Your task to perform on an android device: Open Android settings Image 0: 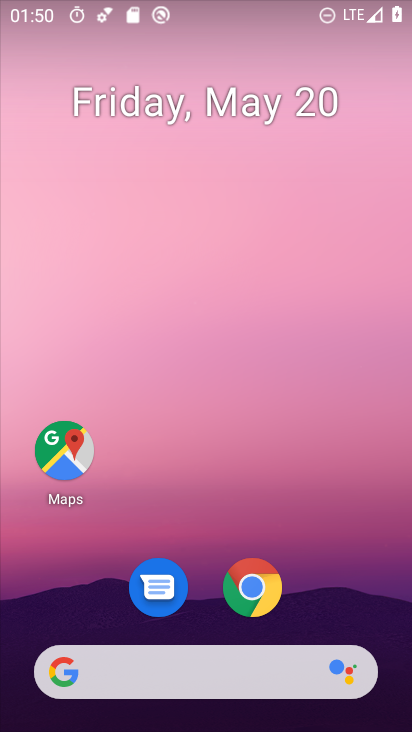
Step 0: drag from (388, 495) to (402, 69)
Your task to perform on an android device: Open Android settings Image 1: 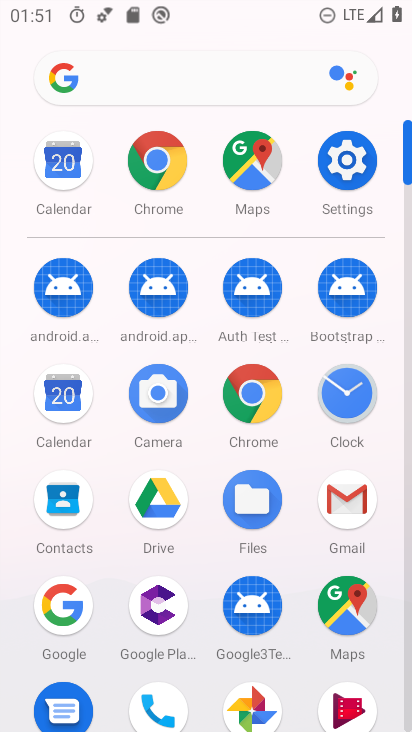
Step 1: click (354, 189)
Your task to perform on an android device: Open Android settings Image 2: 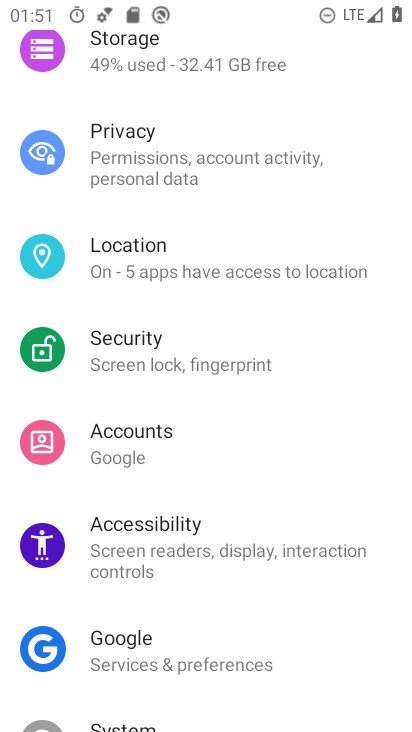
Step 2: drag from (335, 620) to (335, 455)
Your task to perform on an android device: Open Android settings Image 3: 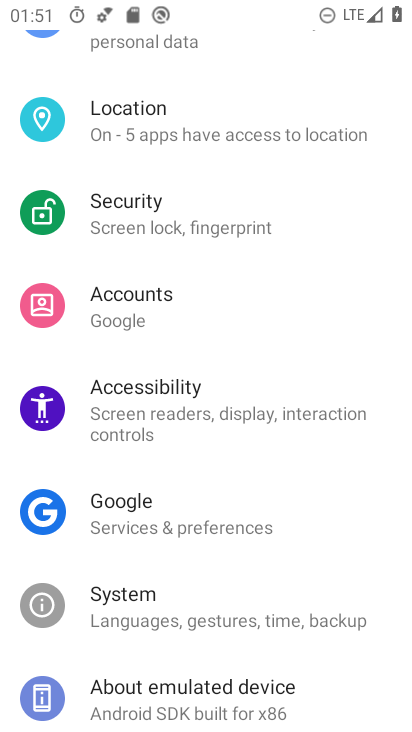
Step 3: drag from (336, 655) to (340, 477)
Your task to perform on an android device: Open Android settings Image 4: 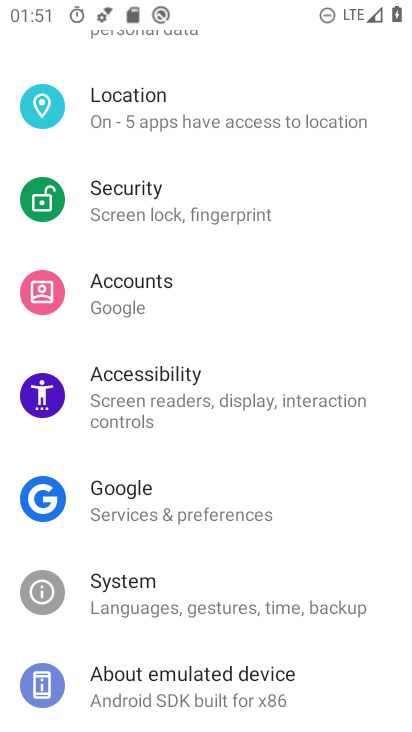
Step 4: click (303, 611)
Your task to perform on an android device: Open Android settings Image 5: 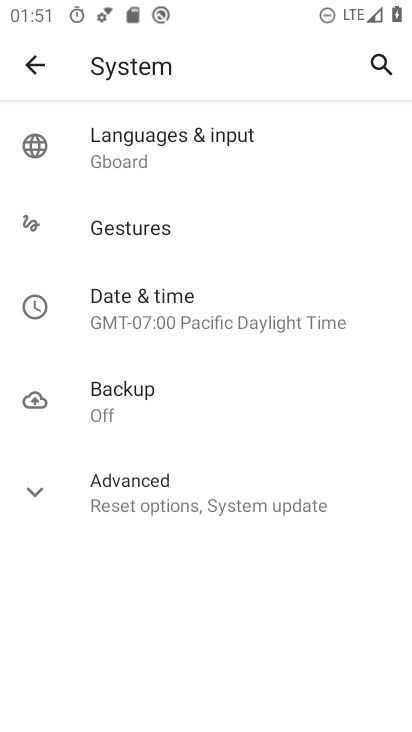
Step 5: drag from (379, 306) to (377, 492)
Your task to perform on an android device: Open Android settings Image 6: 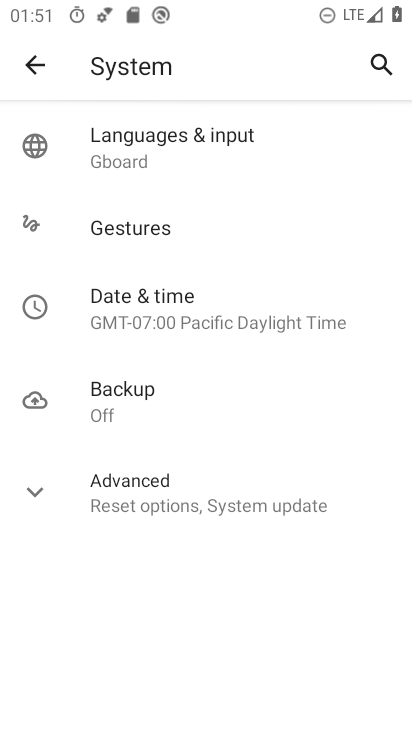
Step 6: click (268, 496)
Your task to perform on an android device: Open Android settings Image 7: 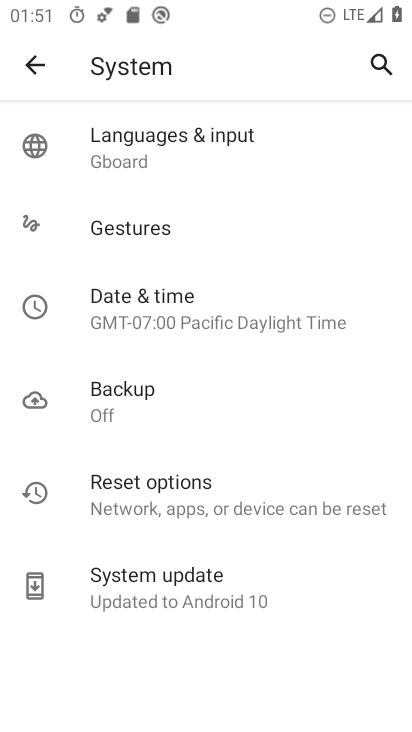
Step 7: task complete